Your task to perform on an android device: Go to notification settings Image 0: 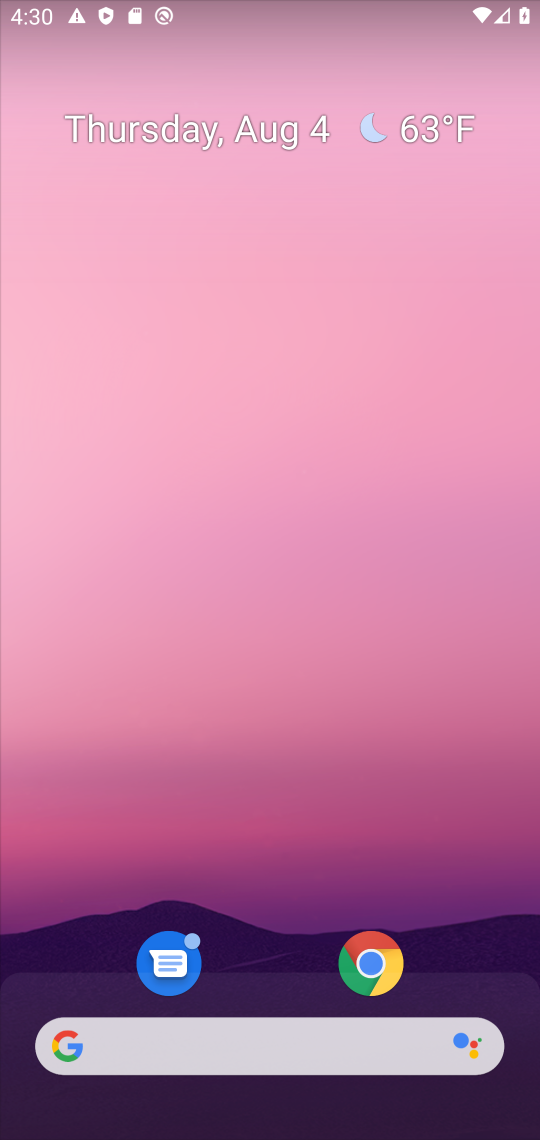
Step 0: click (385, 550)
Your task to perform on an android device: Go to notification settings Image 1: 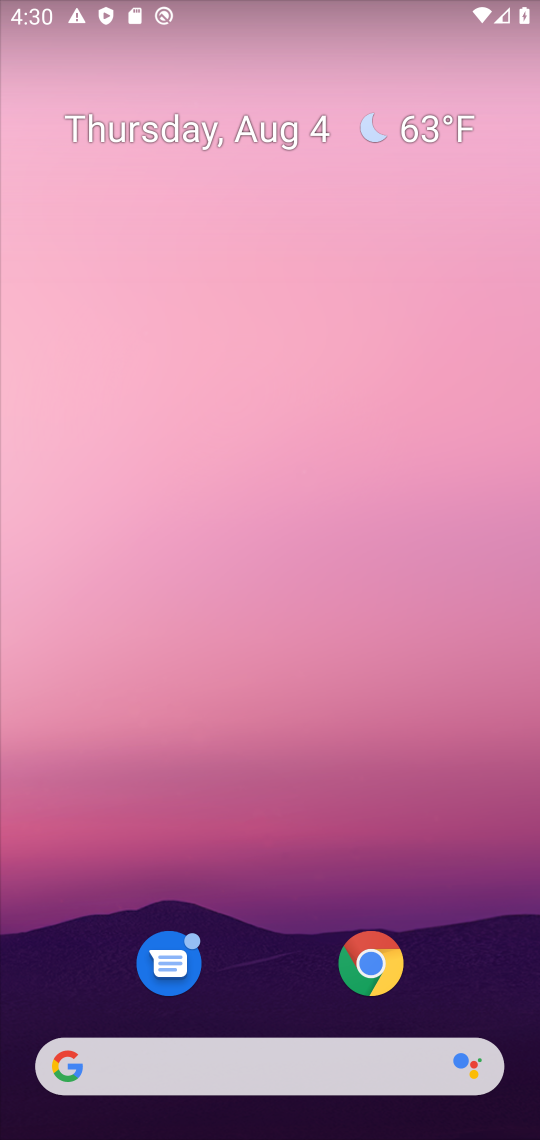
Step 1: drag from (285, 892) to (285, 221)
Your task to perform on an android device: Go to notification settings Image 2: 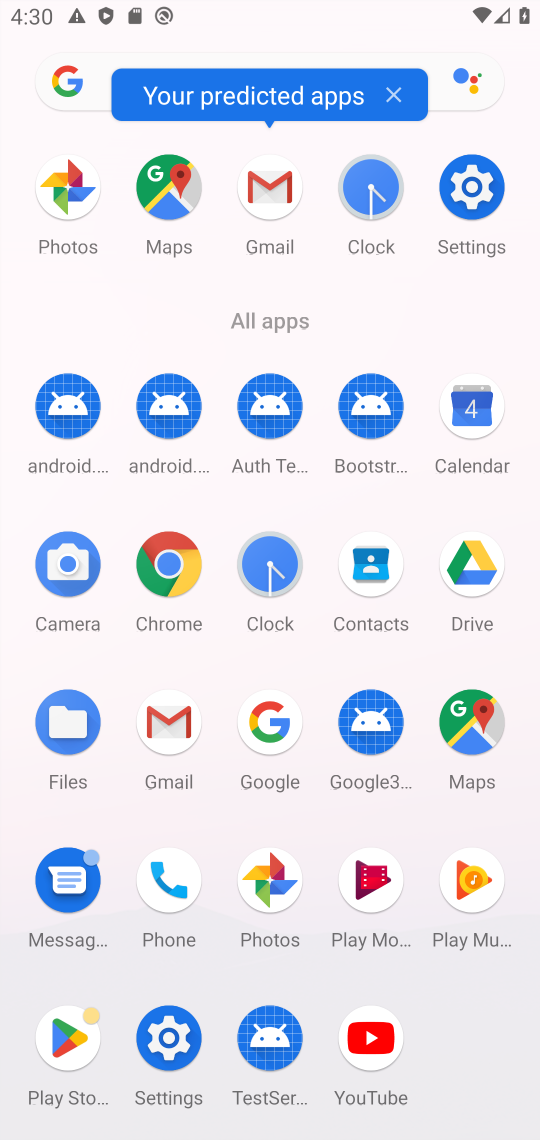
Step 2: click (471, 187)
Your task to perform on an android device: Go to notification settings Image 3: 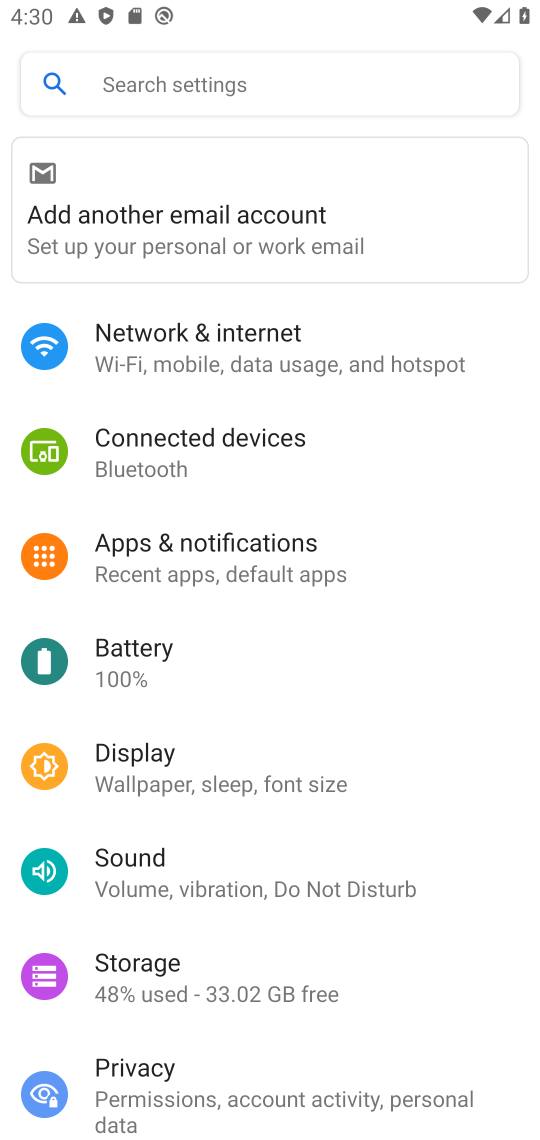
Step 3: click (196, 535)
Your task to perform on an android device: Go to notification settings Image 4: 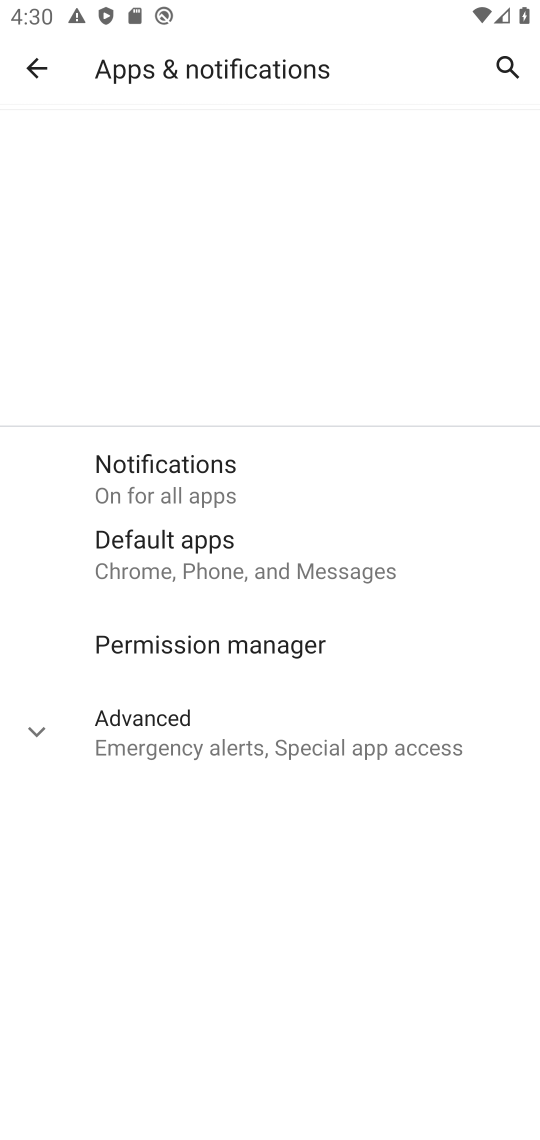
Step 4: task complete